Your task to perform on an android device: Open Google Chrome and open the bookmarks view Image 0: 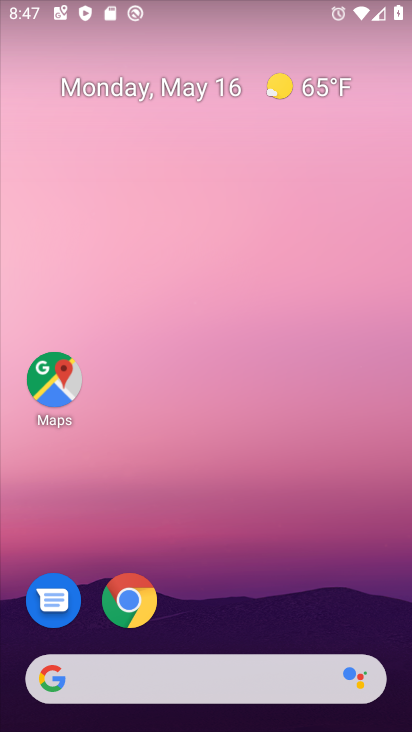
Step 0: click (131, 601)
Your task to perform on an android device: Open Google Chrome and open the bookmarks view Image 1: 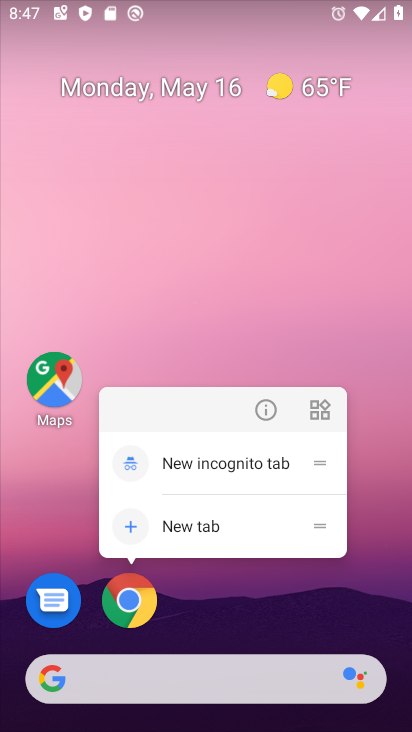
Step 1: click (269, 399)
Your task to perform on an android device: Open Google Chrome and open the bookmarks view Image 2: 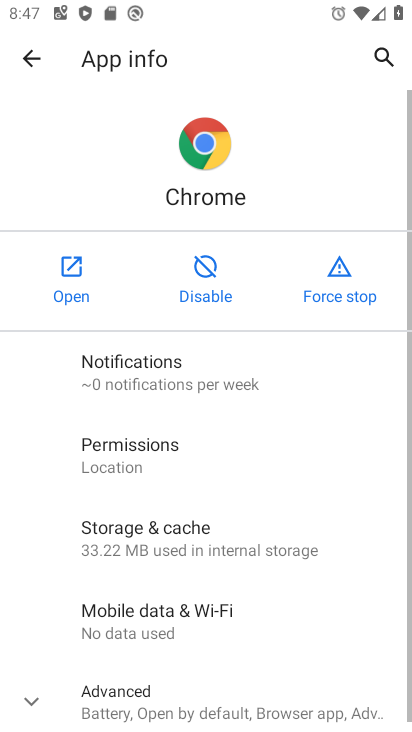
Step 2: click (57, 286)
Your task to perform on an android device: Open Google Chrome and open the bookmarks view Image 3: 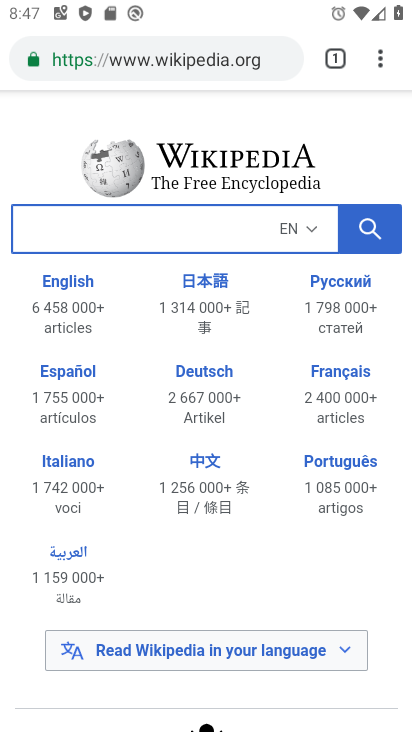
Step 3: click (388, 45)
Your task to perform on an android device: Open Google Chrome and open the bookmarks view Image 4: 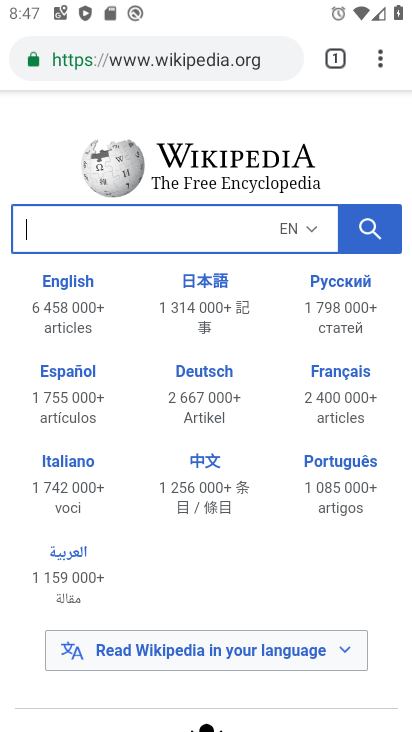
Step 4: click (384, 50)
Your task to perform on an android device: Open Google Chrome and open the bookmarks view Image 5: 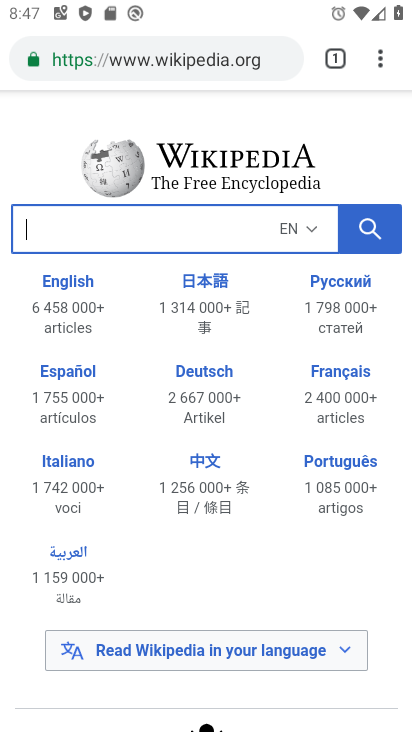
Step 5: click (384, 50)
Your task to perform on an android device: Open Google Chrome and open the bookmarks view Image 6: 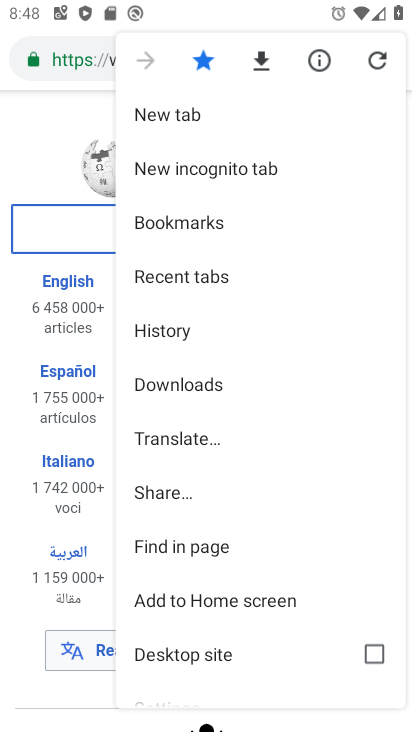
Step 6: click (171, 225)
Your task to perform on an android device: Open Google Chrome and open the bookmarks view Image 7: 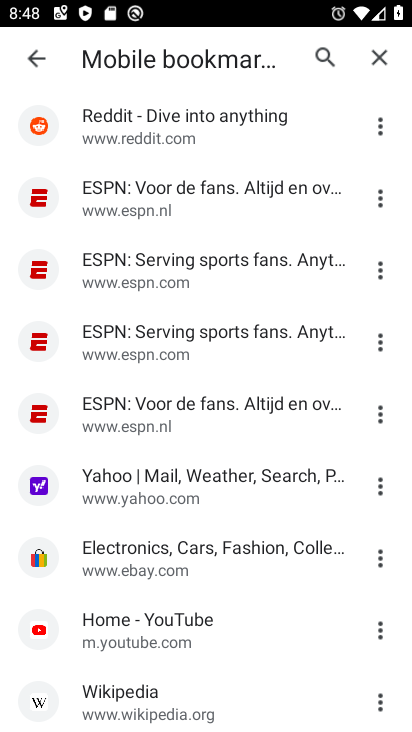
Step 7: task complete